Your task to perform on an android device: Open privacy settings Image 0: 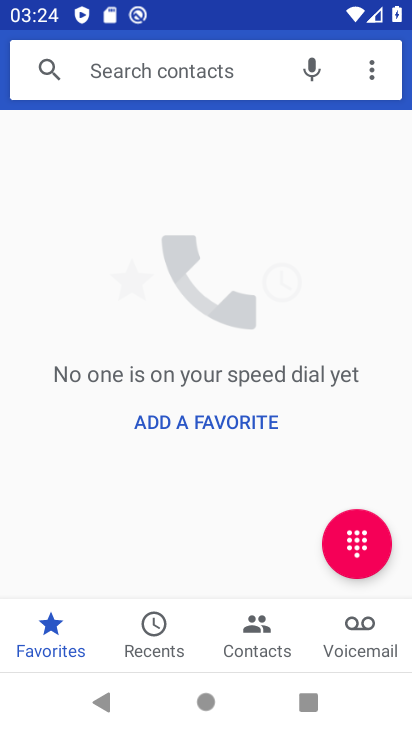
Step 0: press home button
Your task to perform on an android device: Open privacy settings Image 1: 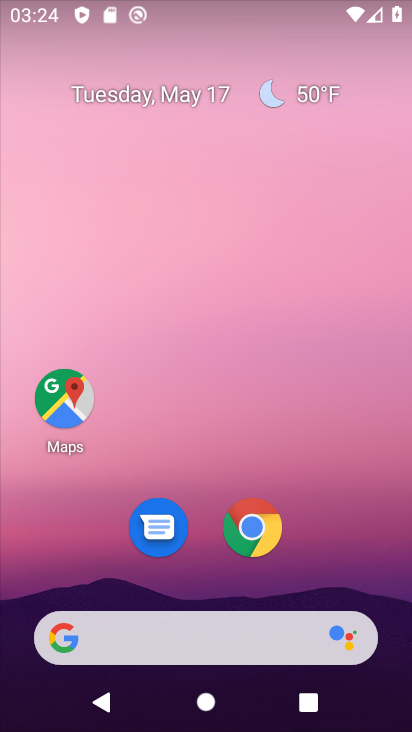
Step 1: click (267, 527)
Your task to perform on an android device: Open privacy settings Image 2: 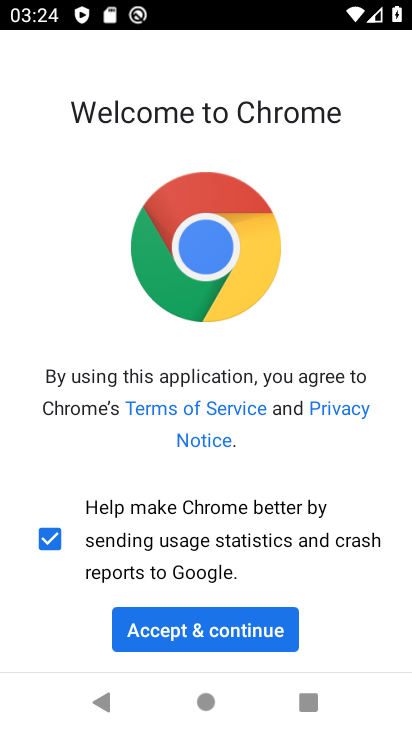
Step 2: click (256, 643)
Your task to perform on an android device: Open privacy settings Image 3: 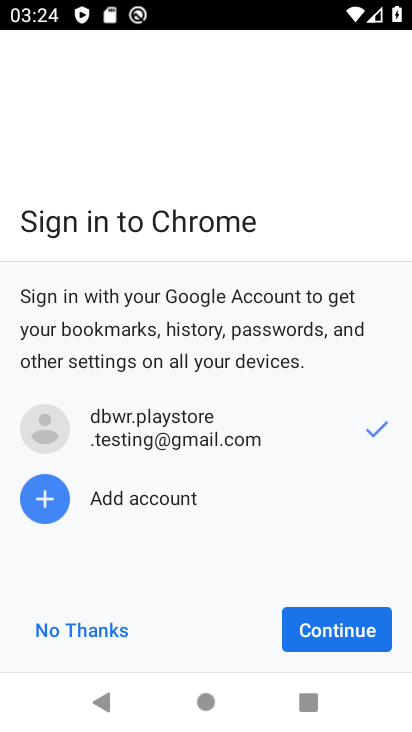
Step 3: click (365, 641)
Your task to perform on an android device: Open privacy settings Image 4: 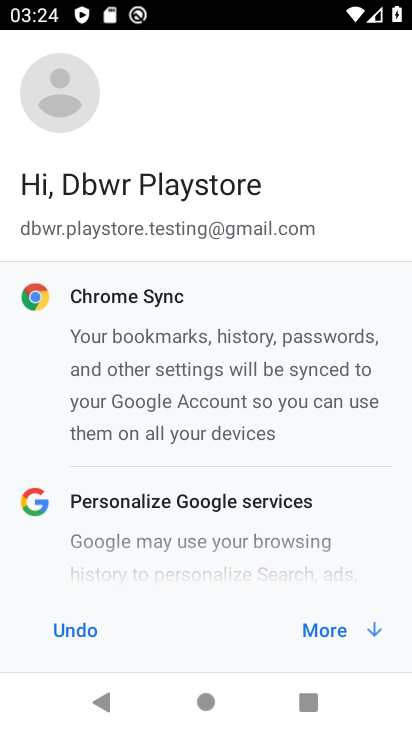
Step 4: click (355, 638)
Your task to perform on an android device: Open privacy settings Image 5: 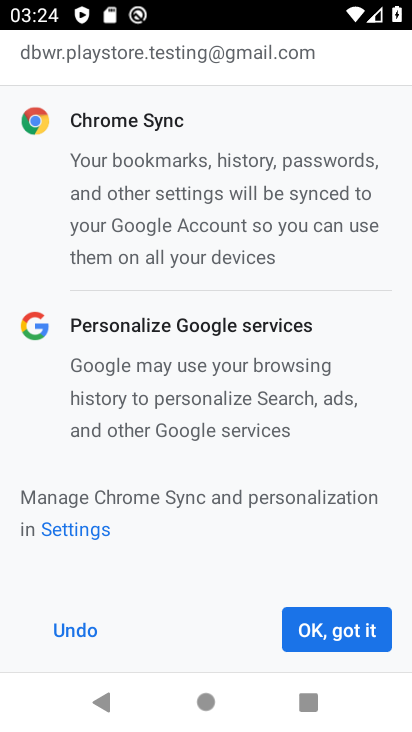
Step 5: click (355, 638)
Your task to perform on an android device: Open privacy settings Image 6: 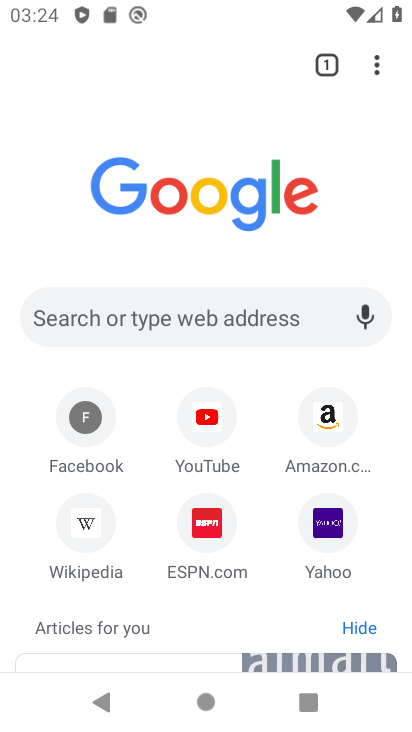
Step 6: drag from (377, 70) to (274, 562)
Your task to perform on an android device: Open privacy settings Image 7: 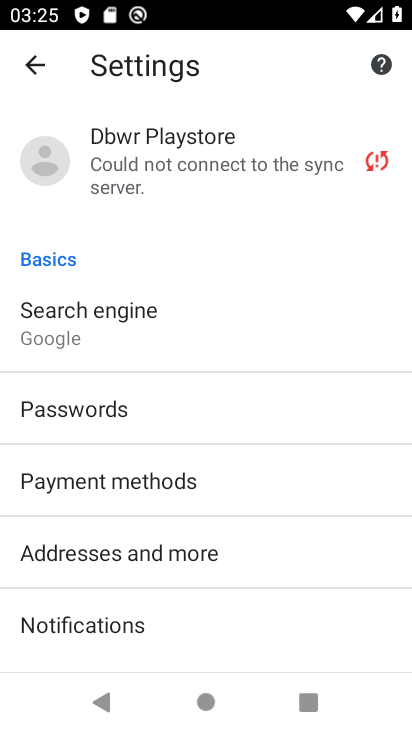
Step 7: drag from (256, 692) to (409, 210)
Your task to perform on an android device: Open privacy settings Image 8: 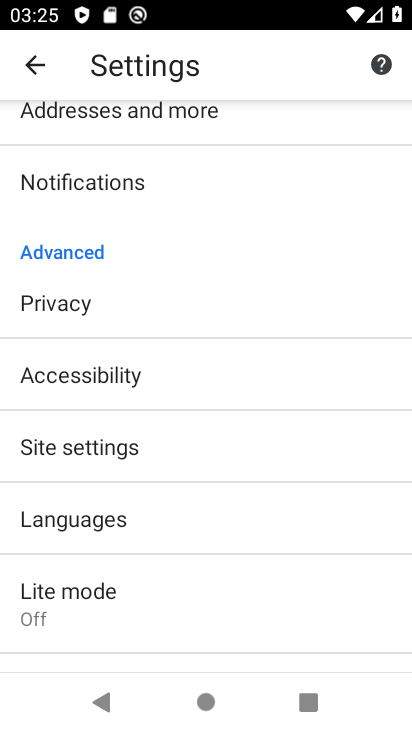
Step 8: click (224, 315)
Your task to perform on an android device: Open privacy settings Image 9: 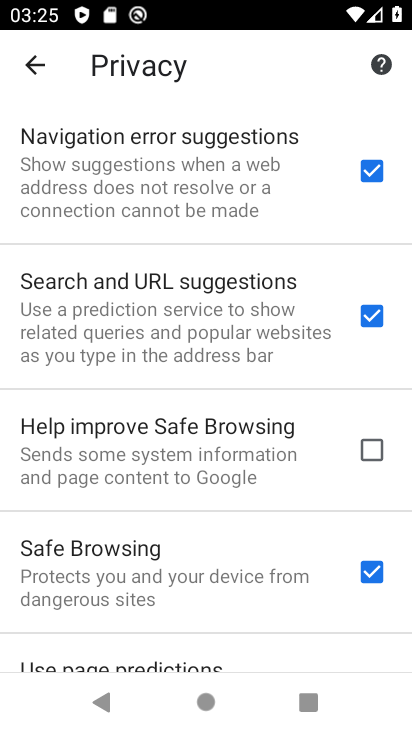
Step 9: task complete